Your task to perform on an android device: delete the emails in spam in the gmail app Image 0: 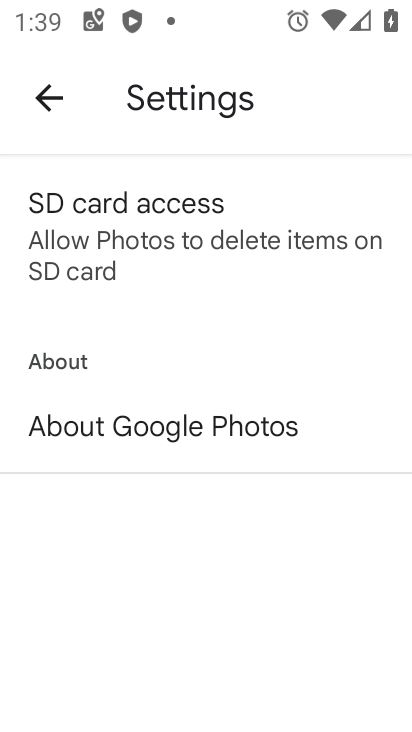
Step 0: press home button
Your task to perform on an android device: delete the emails in spam in the gmail app Image 1: 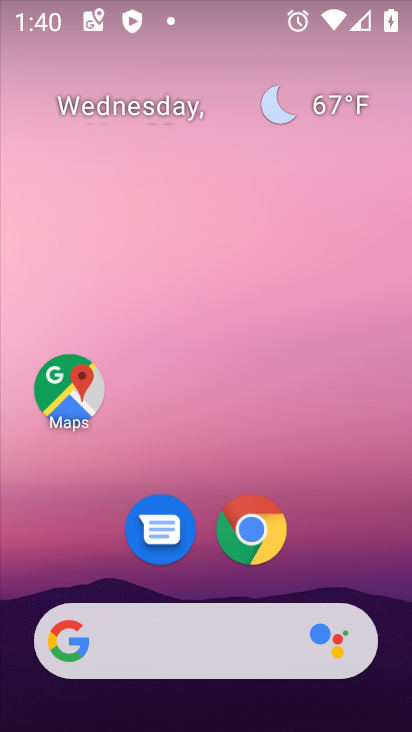
Step 1: drag from (329, 557) to (282, 185)
Your task to perform on an android device: delete the emails in spam in the gmail app Image 2: 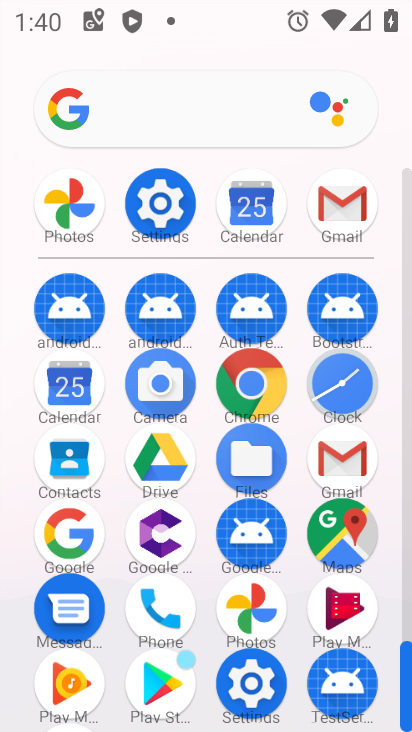
Step 2: click (342, 208)
Your task to perform on an android device: delete the emails in spam in the gmail app Image 3: 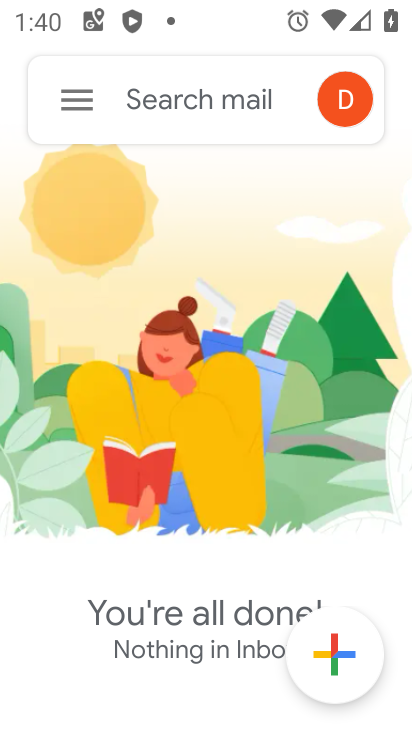
Step 3: click (81, 93)
Your task to perform on an android device: delete the emails in spam in the gmail app Image 4: 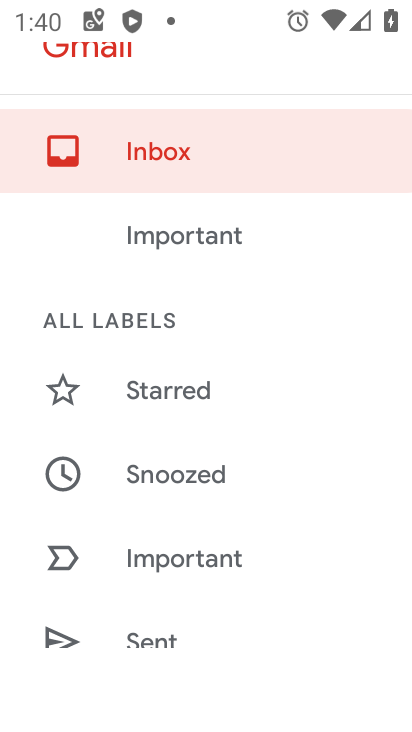
Step 4: drag from (166, 427) to (169, 338)
Your task to perform on an android device: delete the emails in spam in the gmail app Image 5: 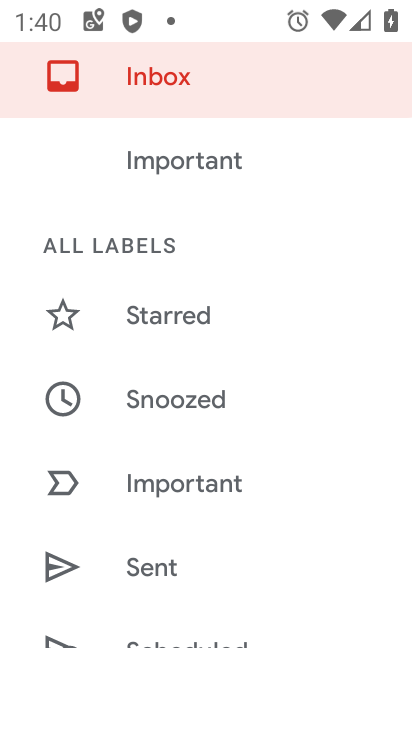
Step 5: drag from (162, 431) to (171, 355)
Your task to perform on an android device: delete the emails in spam in the gmail app Image 6: 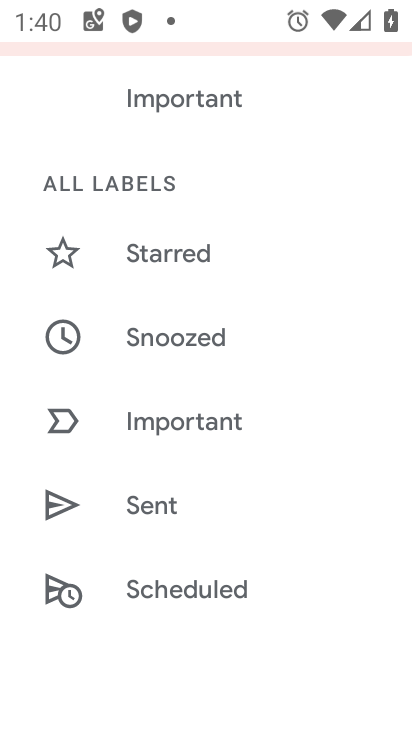
Step 6: drag from (147, 437) to (179, 364)
Your task to perform on an android device: delete the emails in spam in the gmail app Image 7: 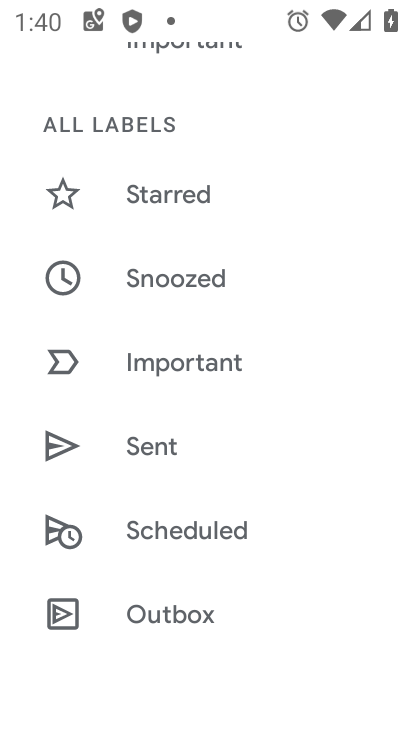
Step 7: drag from (130, 471) to (193, 386)
Your task to perform on an android device: delete the emails in spam in the gmail app Image 8: 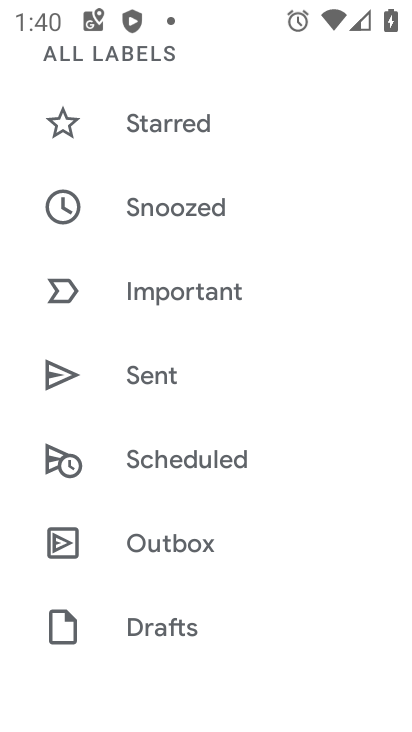
Step 8: drag from (128, 482) to (172, 403)
Your task to perform on an android device: delete the emails in spam in the gmail app Image 9: 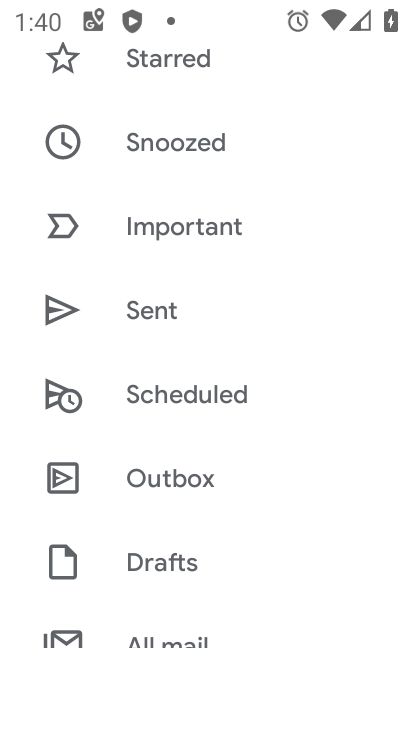
Step 9: drag from (156, 437) to (185, 354)
Your task to perform on an android device: delete the emails in spam in the gmail app Image 10: 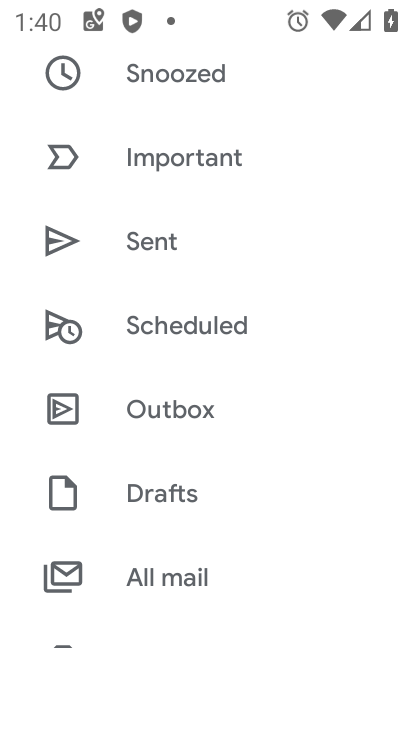
Step 10: drag from (136, 443) to (188, 357)
Your task to perform on an android device: delete the emails in spam in the gmail app Image 11: 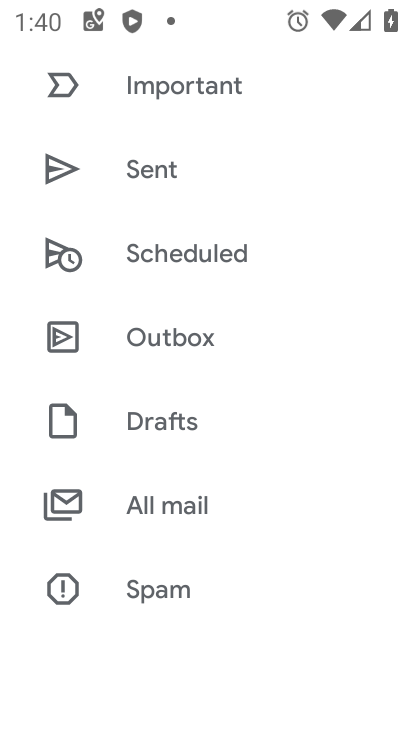
Step 11: drag from (134, 447) to (182, 362)
Your task to perform on an android device: delete the emails in spam in the gmail app Image 12: 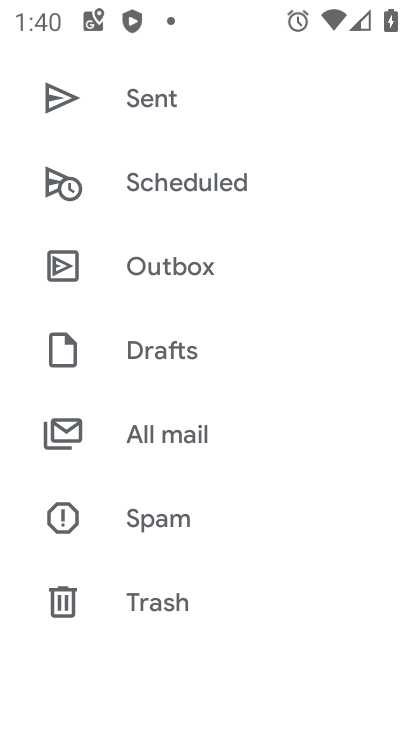
Step 12: drag from (147, 402) to (194, 331)
Your task to perform on an android device: delete the emails in spam in the gmail app Image 13: 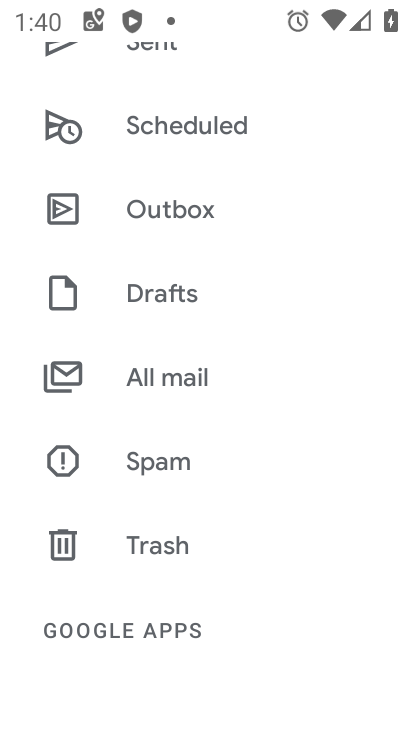
Step 13: click (166, 469)
Your task to perform on an android device: delete the emails in spam in the gmail app Image 14: 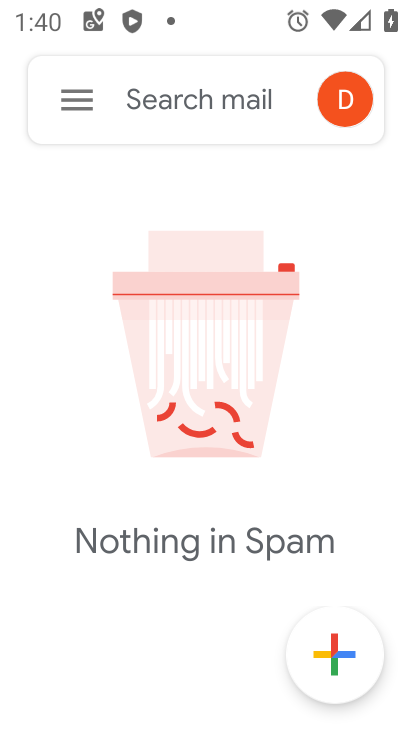
Step 14: task complete